Your task to perform on an android device: Open the web browser Image 0: 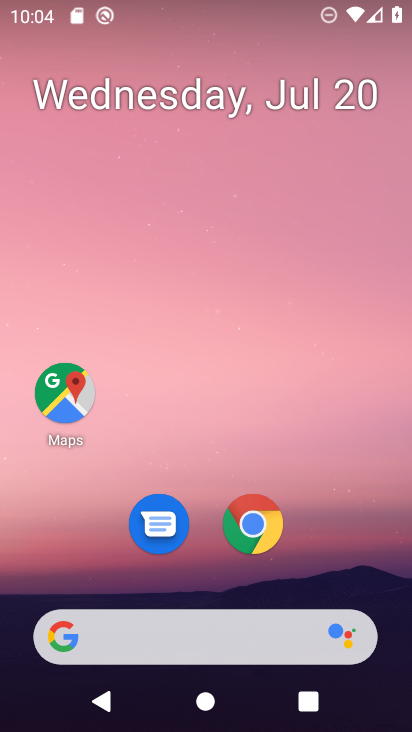
Step 0: click (244, 532)
Your task to perform on an android device: Open the web browser Image 1: 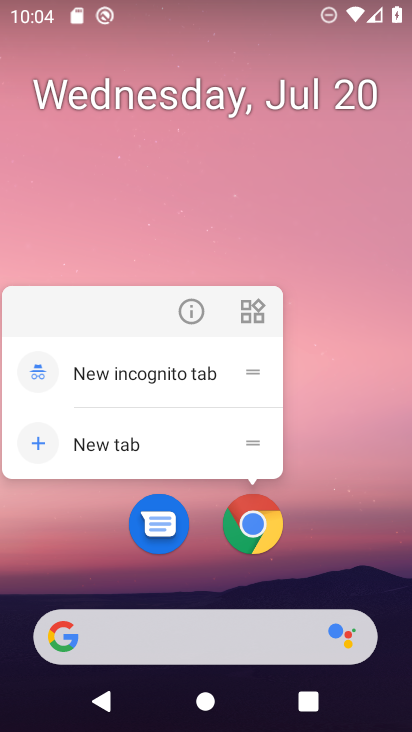
Step 1: click (252, 529)
Your task to perform on an android device: Open the web browser Image 2: 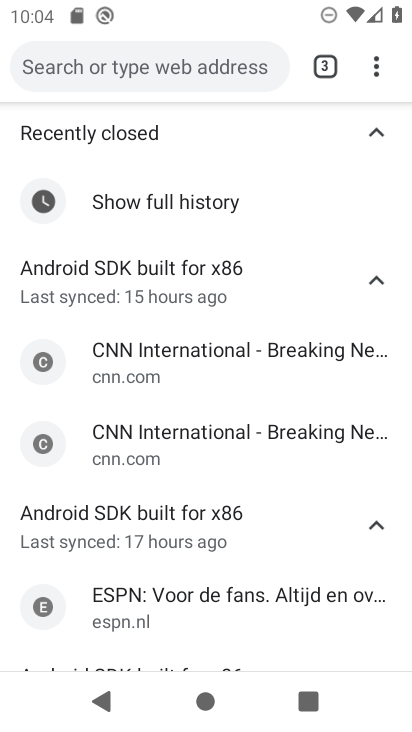
Step 2: task complete